Your task to perform on an android device: Open settings on Google Maps Image 0: 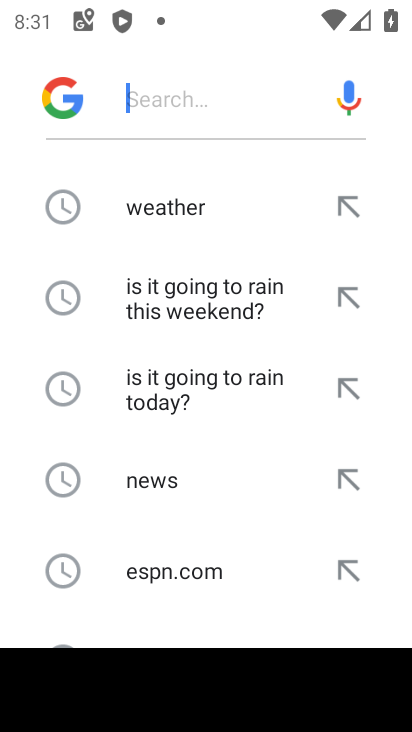
Step 0: press home button
Your task to perform on an android device: Open settings on Google Maps Image 1: 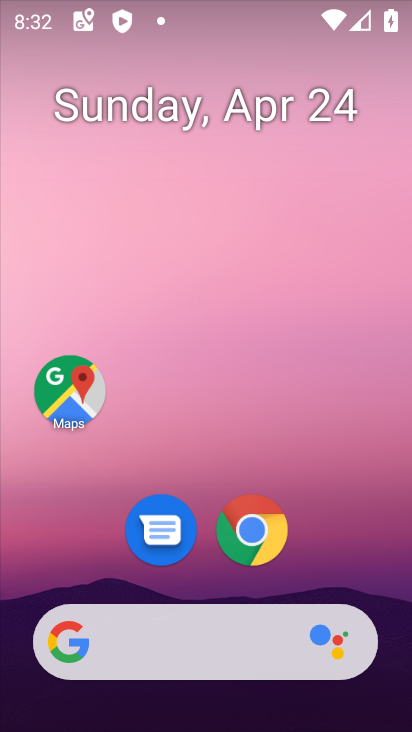
Step 1: click (82, 398)
Your task to perform on an android device: Open settings on Google Maps Image 2: 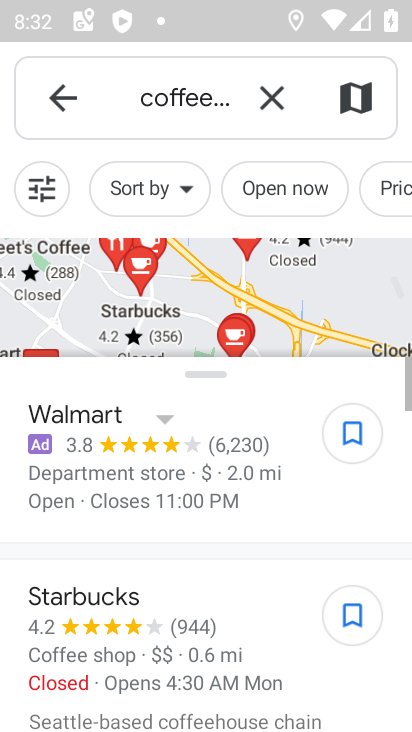
Step 2: click (61, 104)
Your task to perform on an android device: Open settings on Google Maps Image 3: 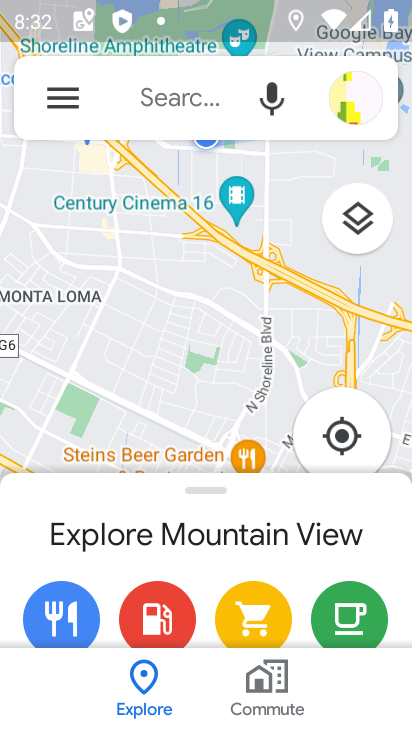
Step 3: click (61, 104)
Your task to perform on an android device: Open settings on Google Maps Image 4: 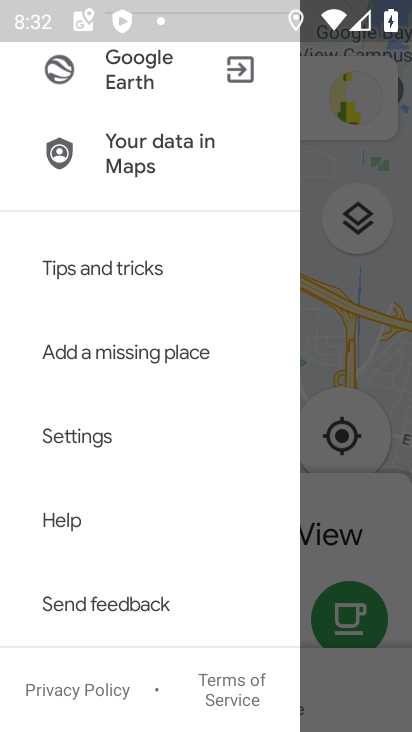
Step 4: click (145, 453)
Your task to perform on an android device: Open settings on Google Maps Image 5: 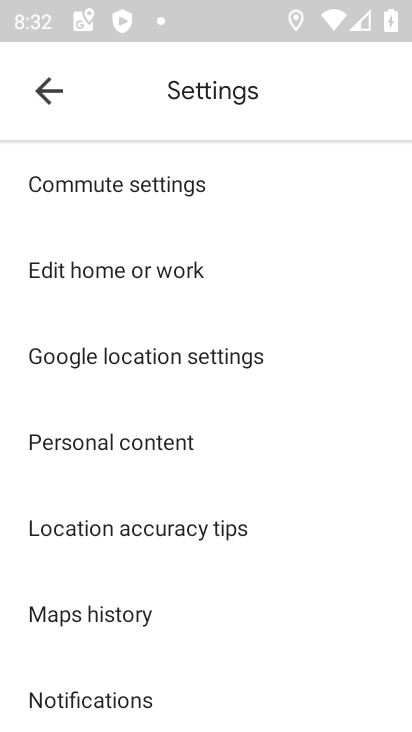
Step 5: task complete